Your task to perform on an android device: turn notification dots on Image 0: 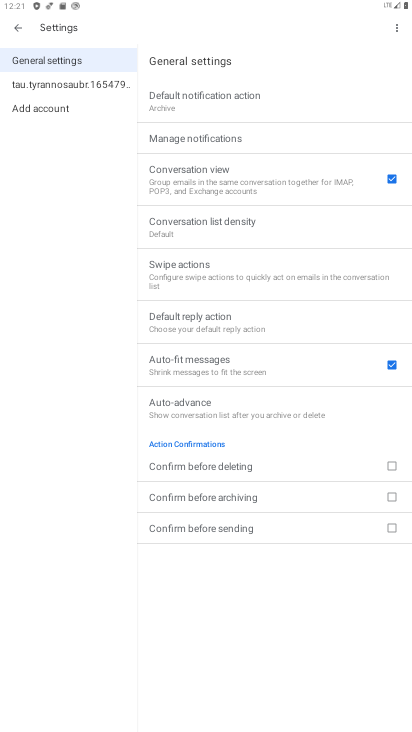
Step 0: press home button
Your task to perform on an android device: turn notification dots on Image 1: 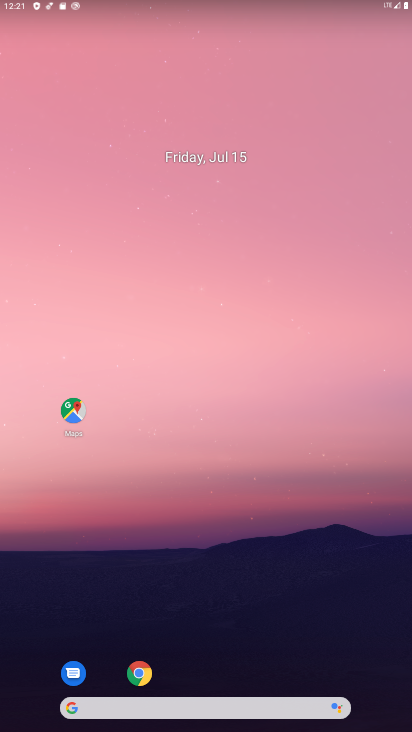
Step 1: drag from (377, 660) to (278, 151)
Your task to perform on an android device: turn notification dots on Image 2: 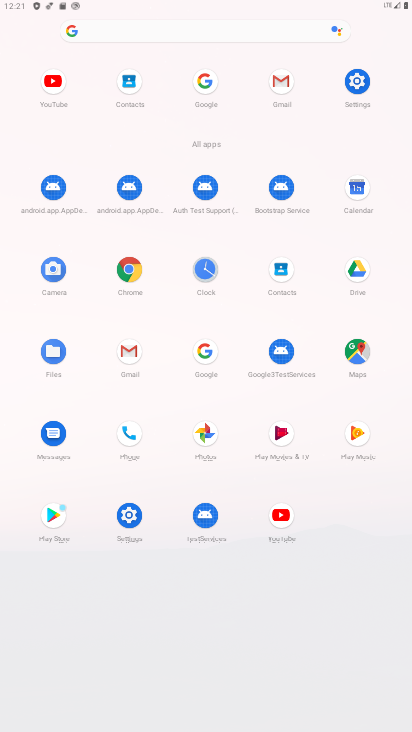
Step 2: click (346, 83)
Your task to perform on an android device: turn notification dots on Image 3: 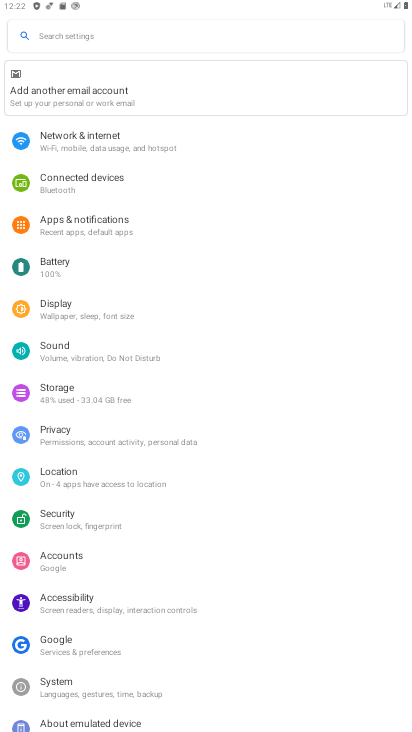
Step 3: click (86, 221)
Your task to perform on an android device: turn notification dots on Image 4: 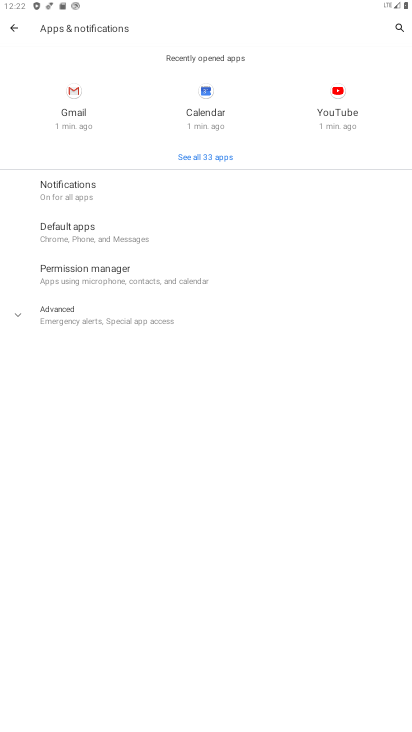
Step 4: click (73, 183)
Your task to perform on an android device: turn notification dots on Image 5: 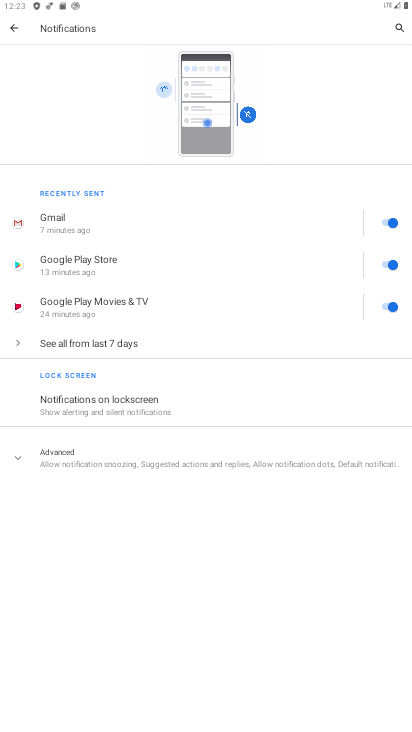
Step 5: click (144, 405)
Your task to perform on an android device: turn notification dots on Image 6: 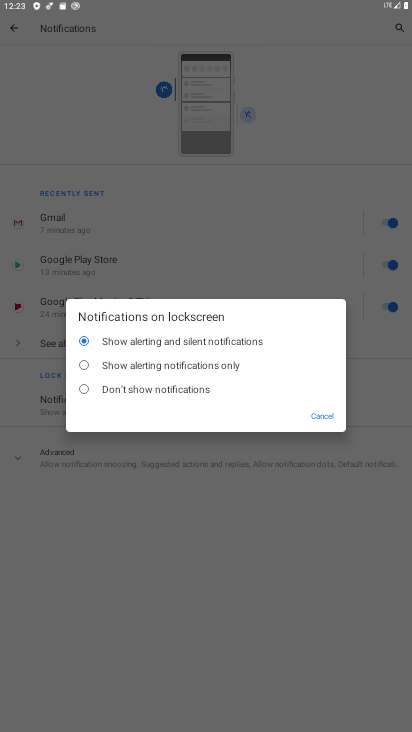
Step 6: click (16, 462)
Your task to perform on an android device: turn notification dots on Image 7: 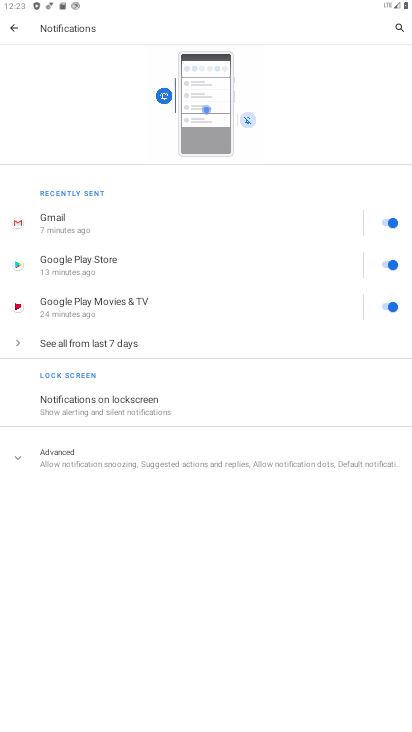
Step 7: click (26, 457)
Your task to perform on an android device: turn notification dots on Image 8: 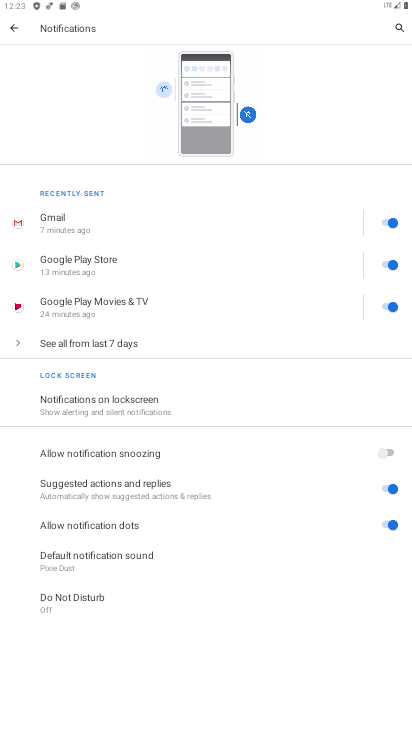
Step 8: task complete